Your task to perform on an android device: turn on improve location accuracy Image 0: 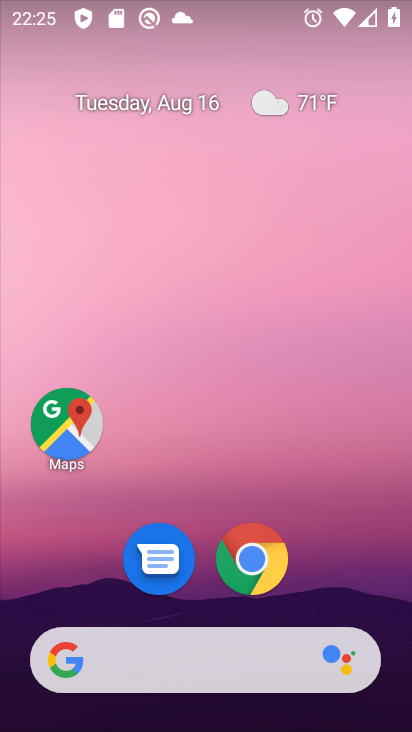
Step 0: drag from (194, 669) to (228, 189)
Your task to perform on an android device: turn on improve location accuracy Image 1: 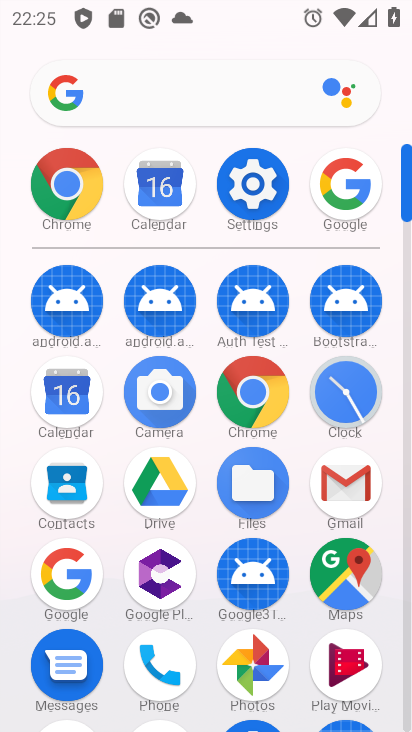
Step 1: click (252, 183)
Your task to perform on an android device: turn on improve location accuracy Image 2: 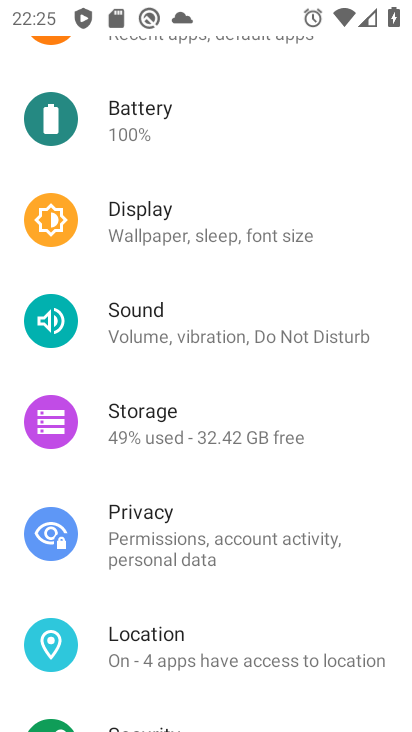
Step 2: drag from (196, 587) to (202, 468)
Your task to perform on an android device: turn on improve location accuracy Image 3: 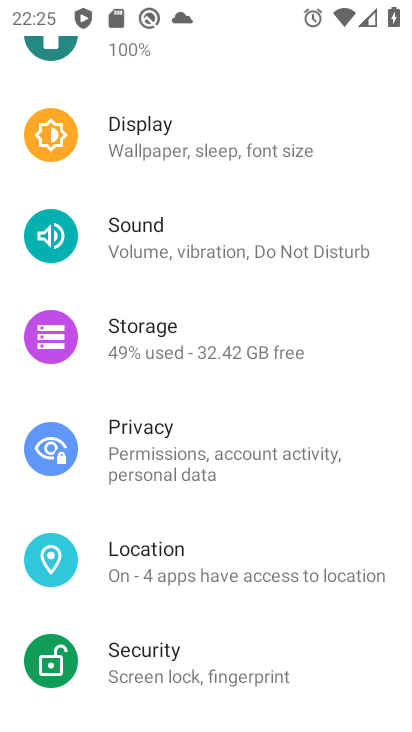
Step 3: click (198, 575)
Your task to perform on an android device: turn on improve location accuracy Image 4: 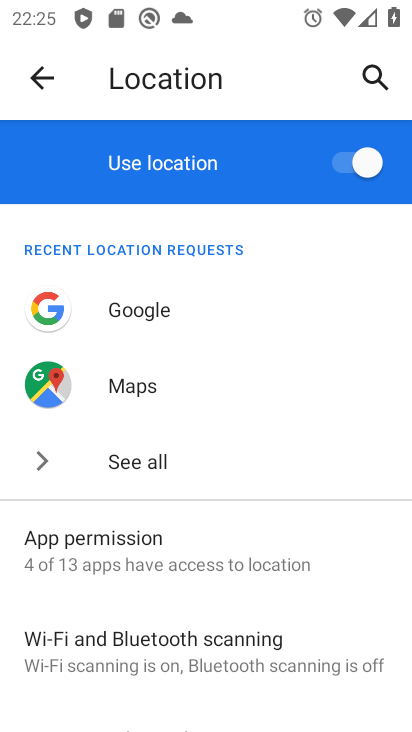
Step 4: drag from (161, 591) to (219, 471)
Your task to perform on an android device: turn on improve location accuracy Image 5: 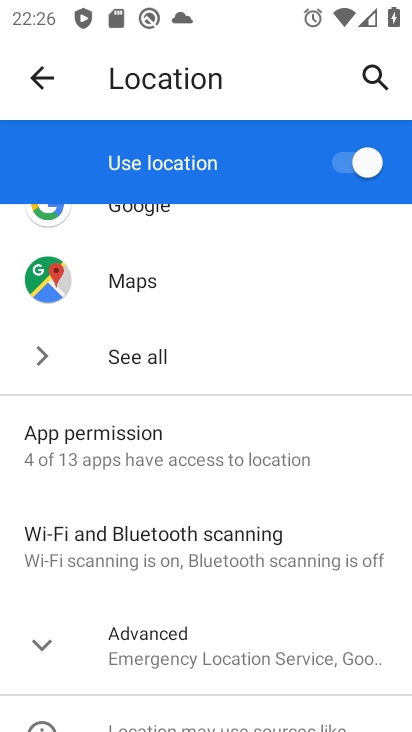
Step 5: drag from (152, 593) to (250, 475)
Your task to perform on an android device: turn on improve location accuracy Image 6: 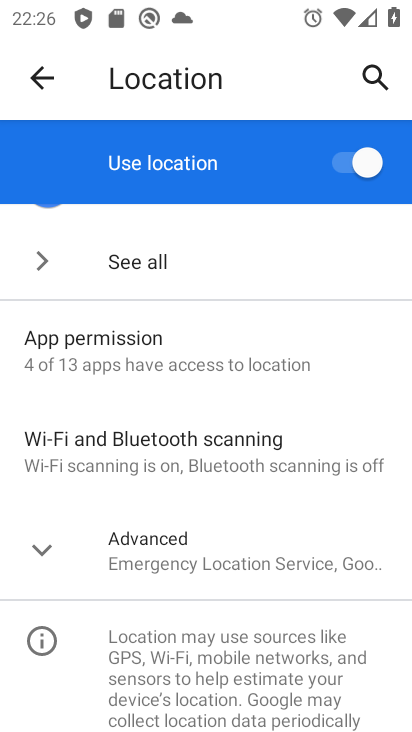
Step 6: click (233, 559)
Your task to perform on an android device: turn on improve location accuracy Image 7: 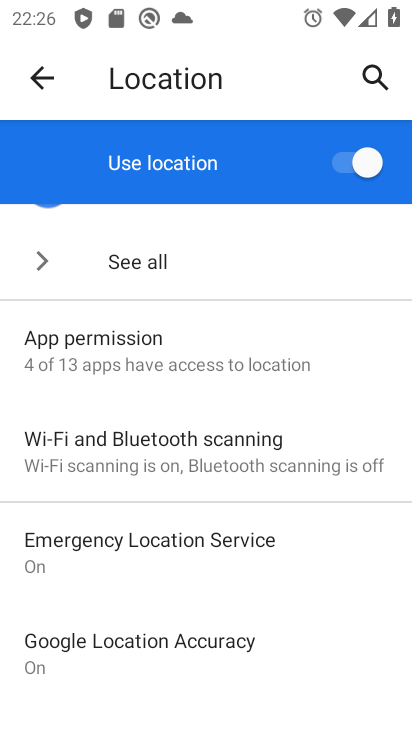
Step 7: drag from (201, 583) to (246, 473)
Your task to perform on an android device: turn on improve location accuracy Image 8: 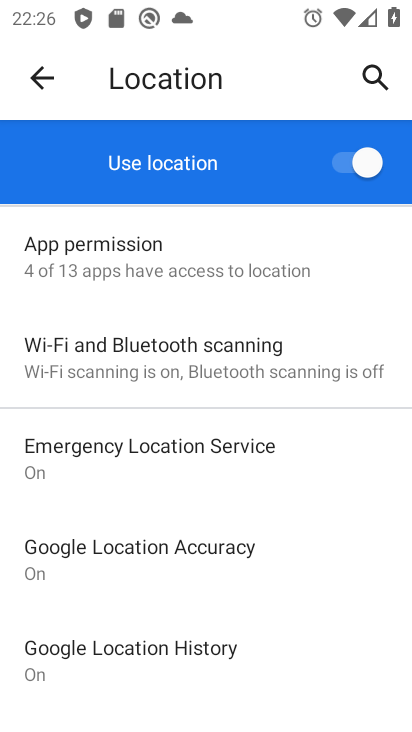
Step 8: click (204, 541)
Your task to perform on an android device: turn on improve location accuracy Image 9: 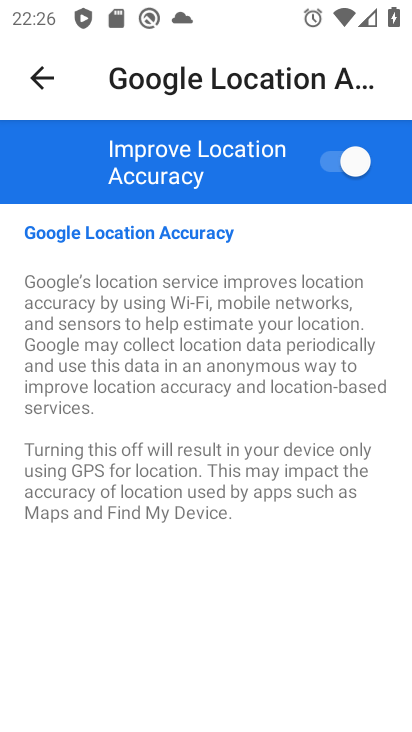
Step 9: task complete